Your task to perform on an android device: turn pop-ups off in chrome Image 0: 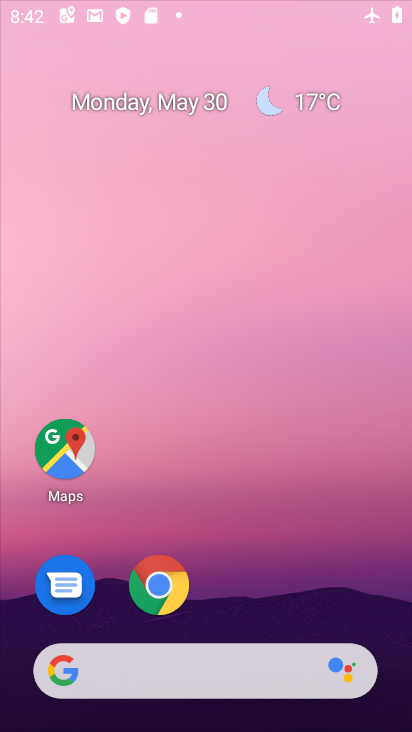
Step 0: drag from (339, 254) to (366, 156)
Your task to perform on an android device: turn pop-ups off in chrome Image 1: 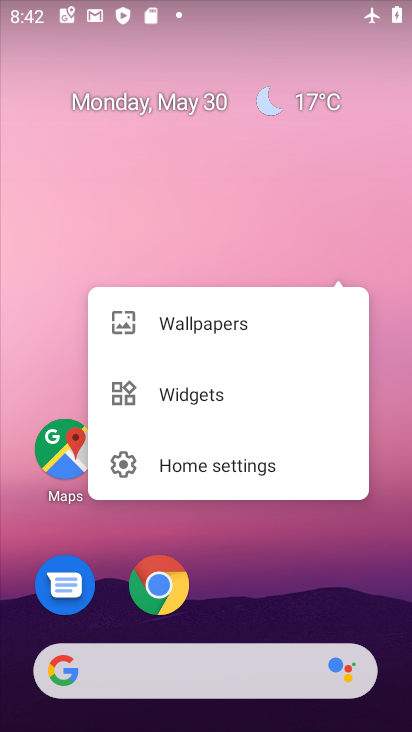
Step 1: click (358, 533)
Your task to perform on an android device: turn pop-ups off in chrome Image 2: 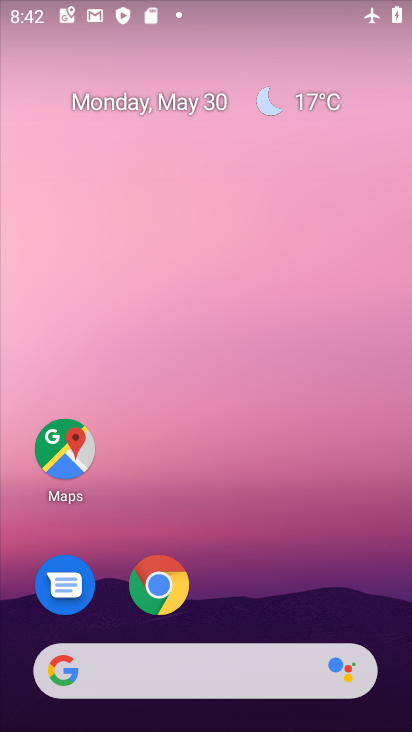
Step 2: click (162, 584)
Your task to perform on an android device: turn pop-ups off in chrome Image 3: 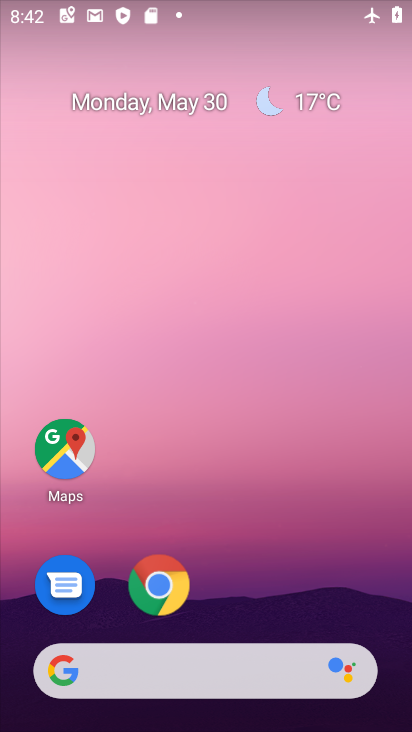
Step 3: click (162, 584)
Your task to perform on an android device: turn pop-ups off in chrome Image 4: 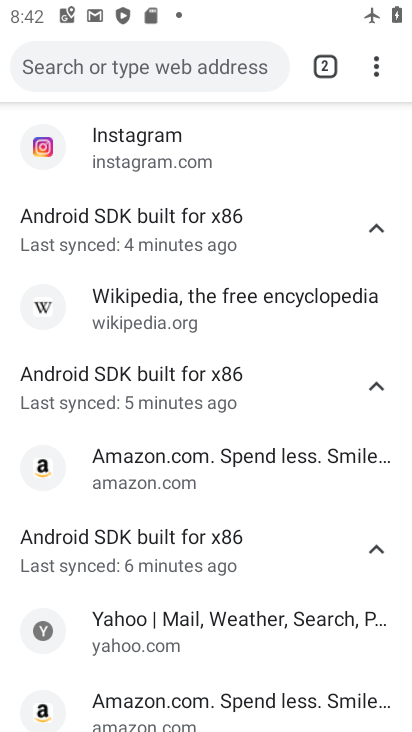
Step 4: click (363, 61)
Your task to perform on an android device: turn pop-ups off in chrome Image 5: 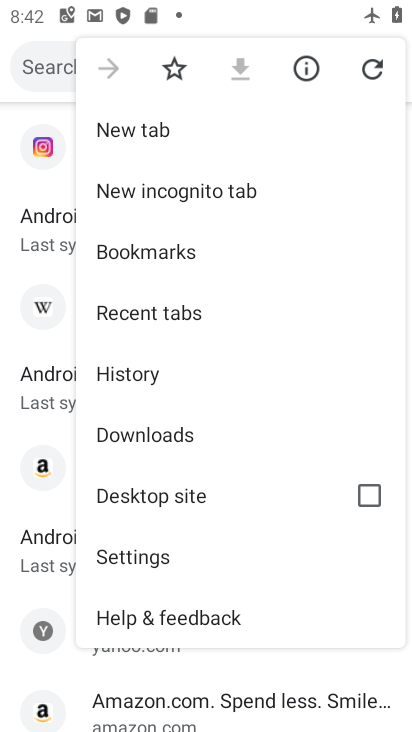
Step 5: click (141, 558)
Your task to perform on an android device: turn pop-ups off in chrome Image 6: 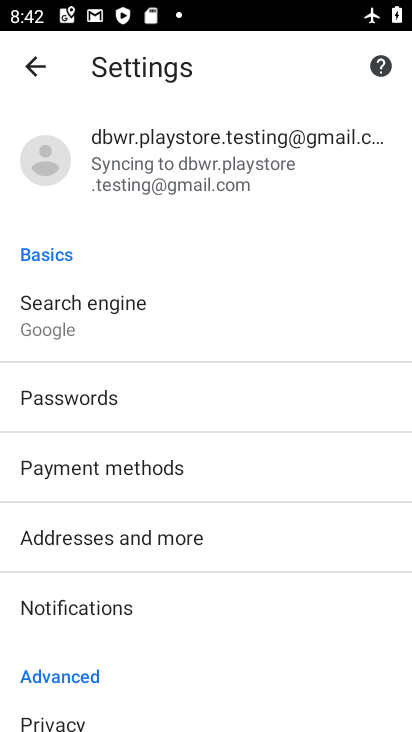
Step 6: drag from (234, 608) to (358, 100)
Your task to perform on an android device: turn pop-ups off in chrome Image 7: 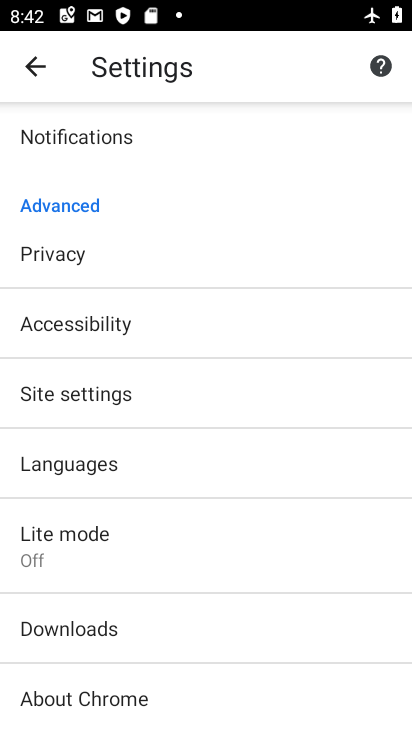
Step 7: click (135, 382)
Your task to perform on an android device: turn pop-ups off in chrome Image 8: 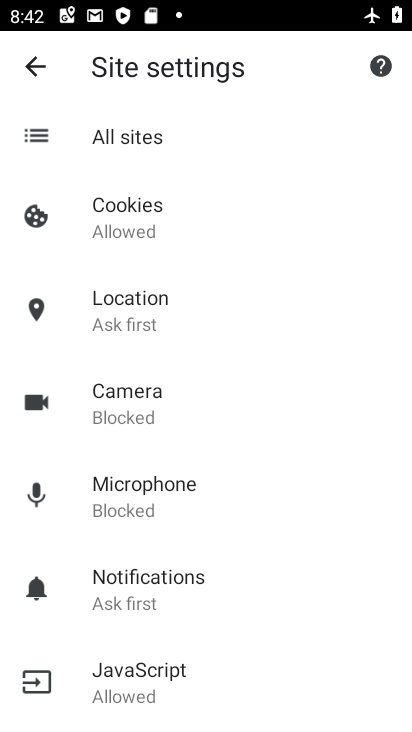
Step 8: drag from (225, 571) to (261, 108)
Your task to perform on an android device: turn pop-ups off in chrome Image 9: 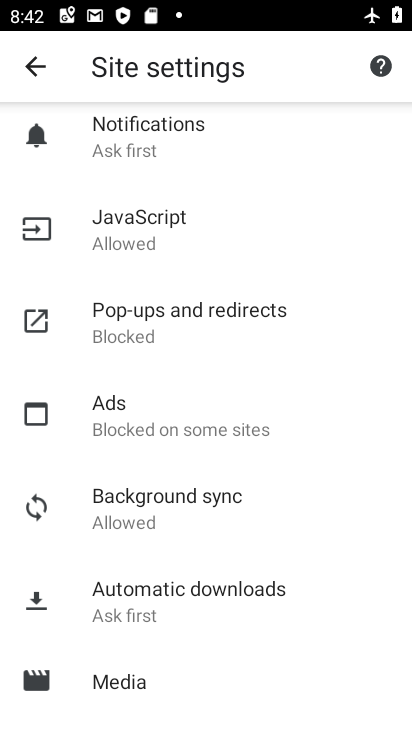
Step 9: drag from (223, 573) to (320, 71)
Your task to perform on an android device: turn pop-ups off in chrome Image 10: 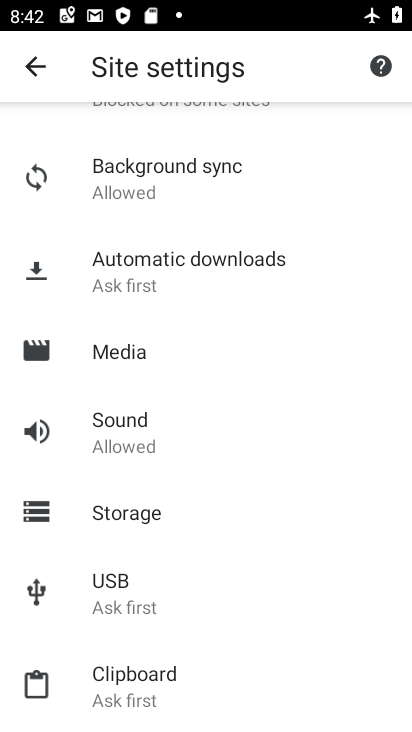
Step 10: drag from (217, 310) to (310, 686)
Your task to perform on an android device: turn pop-ups off in chrome Image 11: 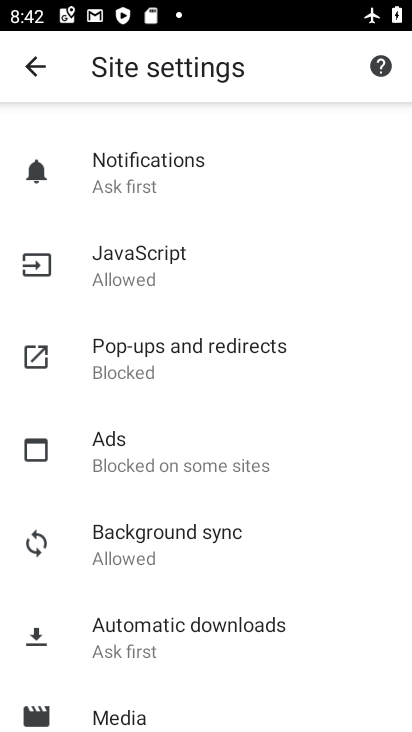
Step 11: click (194, 361)
Your task to perform on an android device: turn pop-ups off in chrome Image 12: 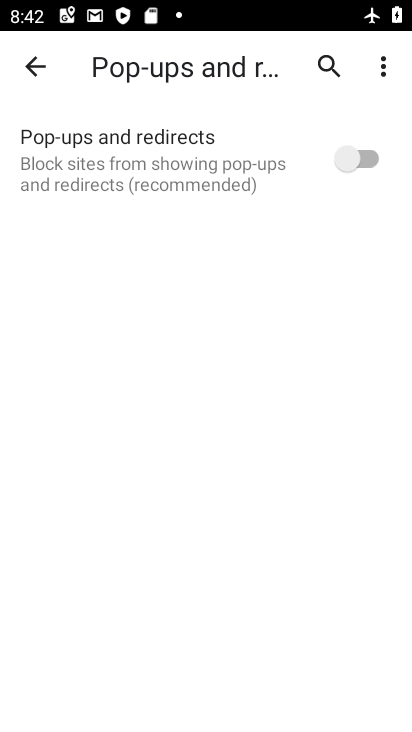
Step 12: task complete